Your task to perform on an android device: Open location settings Image 0: 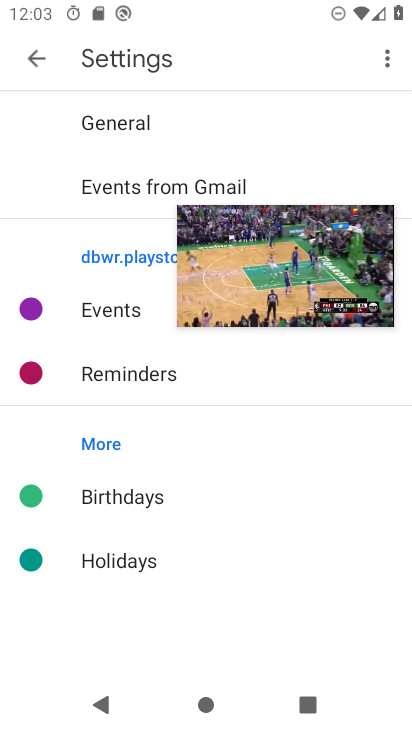
Step 0: press home button
Your task to perform on an android device: Open location settings Image 1: 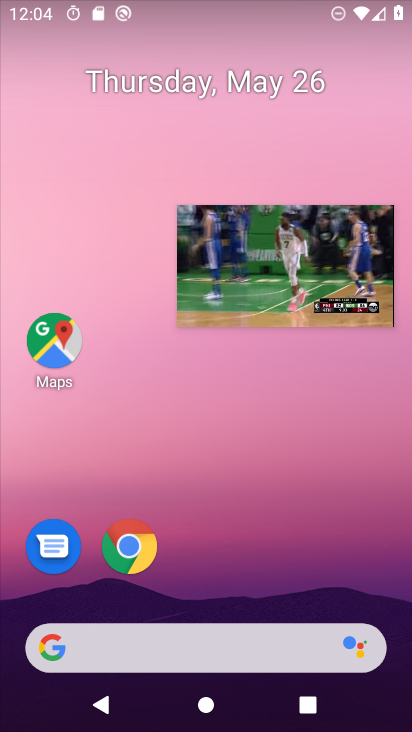
Step 1: drag from (103, 592) to (172, 27)
Your task to perform on an android device: Open location settings Image 2: 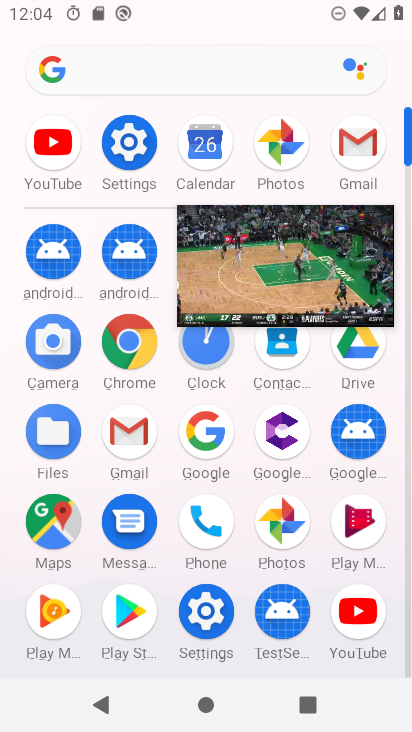
Step 2: click (130, 139)
Your task to perform on an android device: Open location settings Image 3: 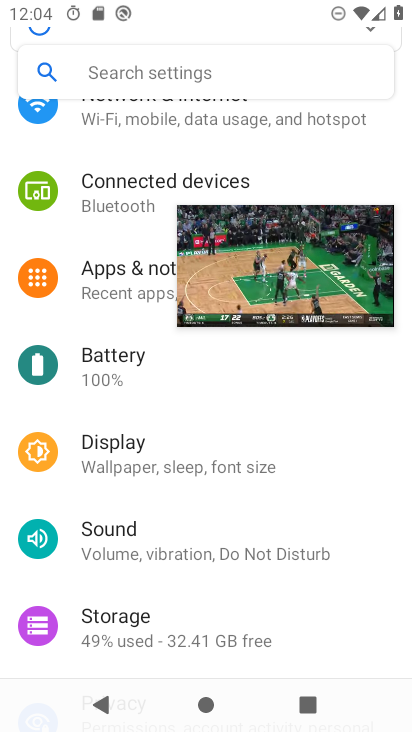
Step 3: drag from (104, 424) to (103, 230)
Your task to perform on an android device: Open location settings Image 4: 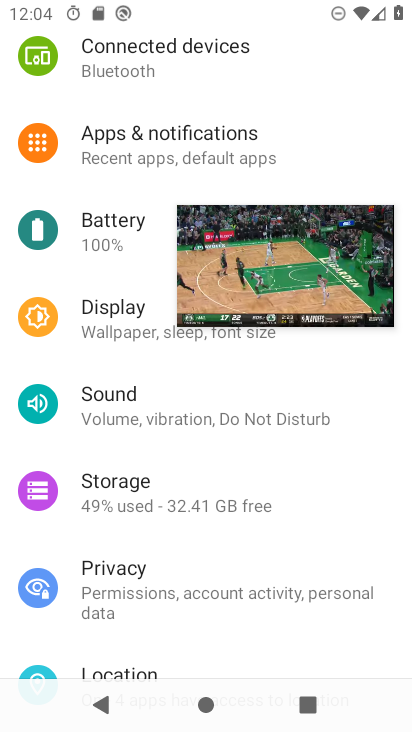
Step 4: click (79, 665)
Your task to perform on an android device: Open location settings Image 5: 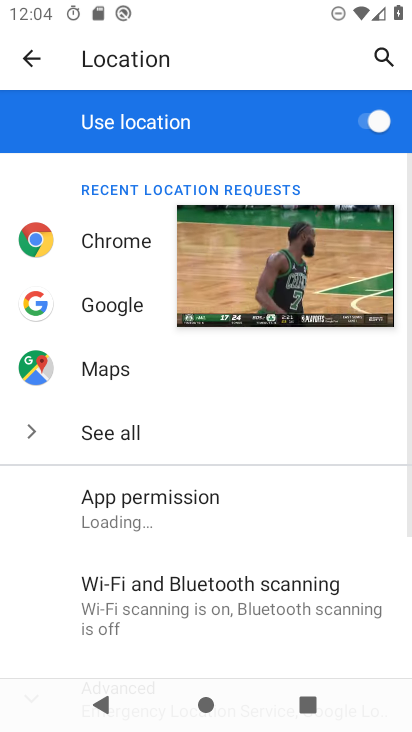
Step 5: task complete